Your task to perform on an android device: turn off wifi Image 0: 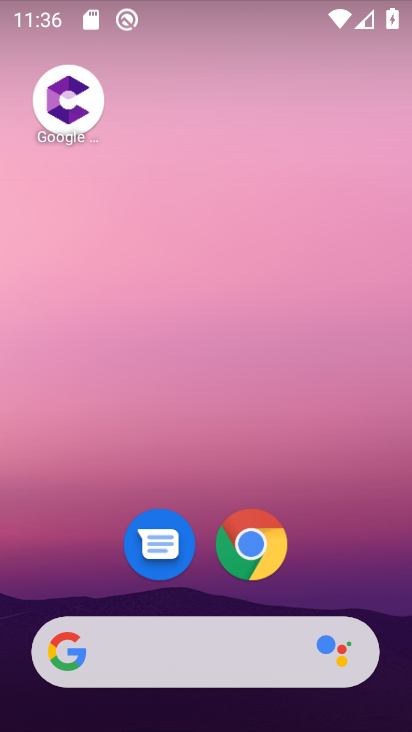
Step 0: drag from (224, 471) to (223, 100)
Your task to perform on an android device: turn off wifi Image 1: 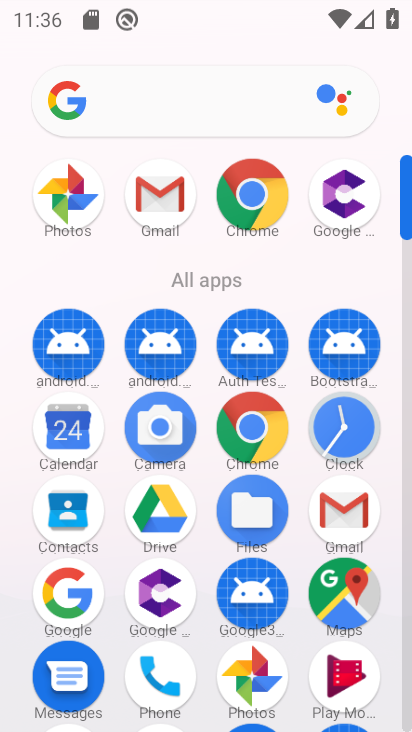
Step 1: drag from (211, 258) to (199, 38)
Your task to perform on an android device: turn off wifi Image 2: 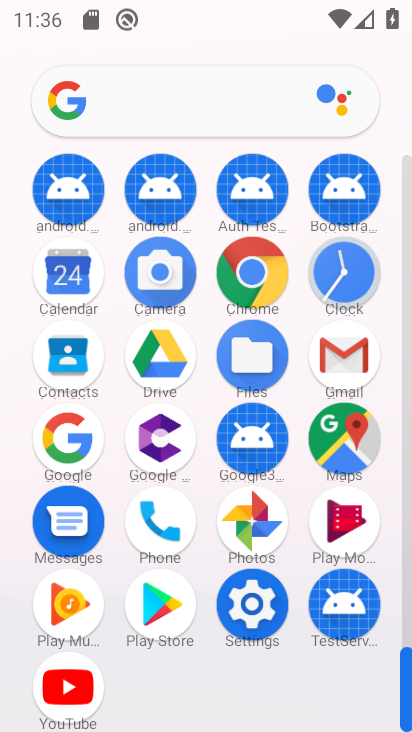
Step 2: click (267, 605)
Your task to perform on an android device: turn off wifi Image 3: 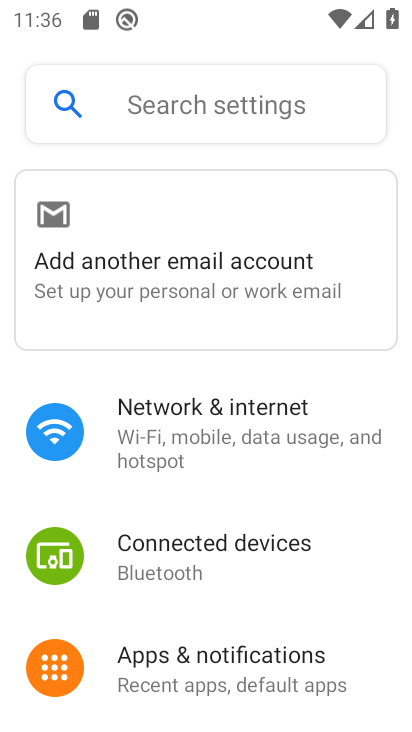
Step 3: click (248, 449)
Your task to perform on an android device: turn off wifi Image 4: 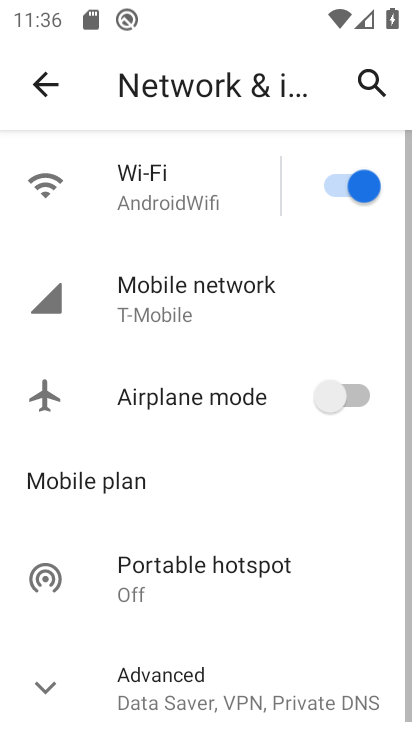
Step 4: click (338, 189)
Your task to perform on an android device: turn off wifi Image 5: 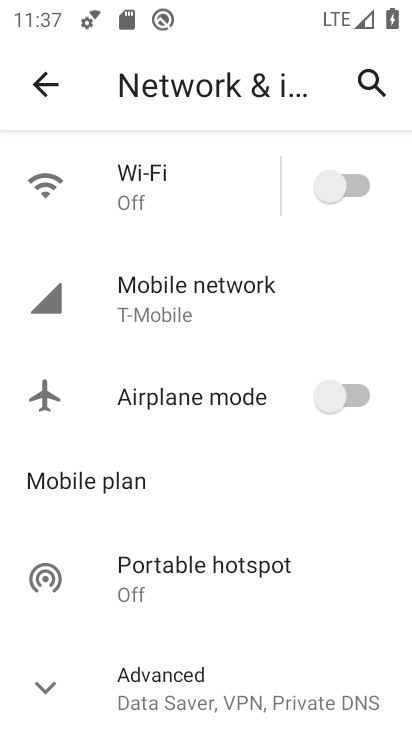
Step 5: task complete